Your task to perform on an android device: Go to CNN.com Image 0: 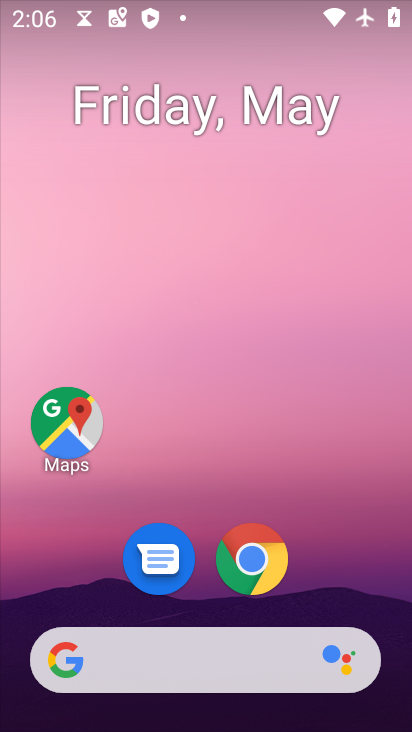
Step 0: click (230, 551)
Your task to perform on an android device: Go to CNN.com Image 1: 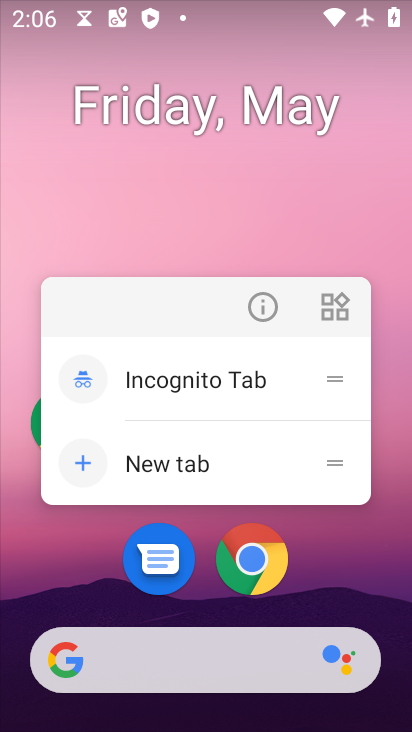
Step 1: click (272, 558)
Your task to perform on an android device: Go to CNN.com Image 2: 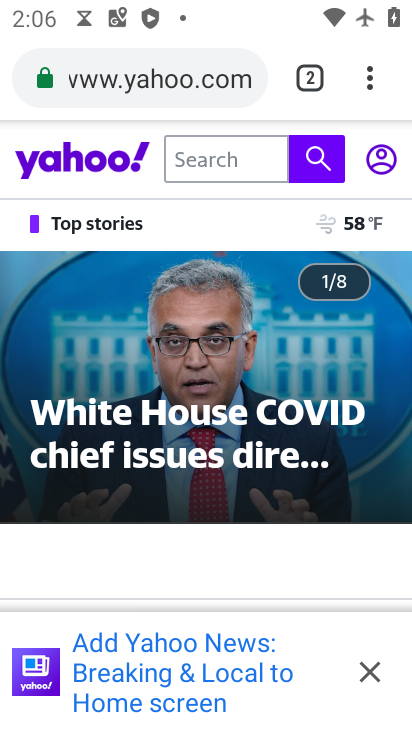
Step 2: click (147, 74)
Your task to perform on an android device: Go to CNN.com Image 3: 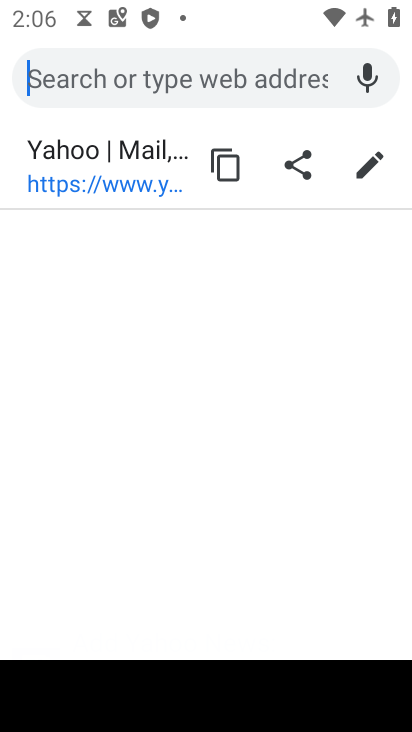
Step 3: type "CNN.com"
Your task to perform on an android device: Go to CNN.com Image 4: 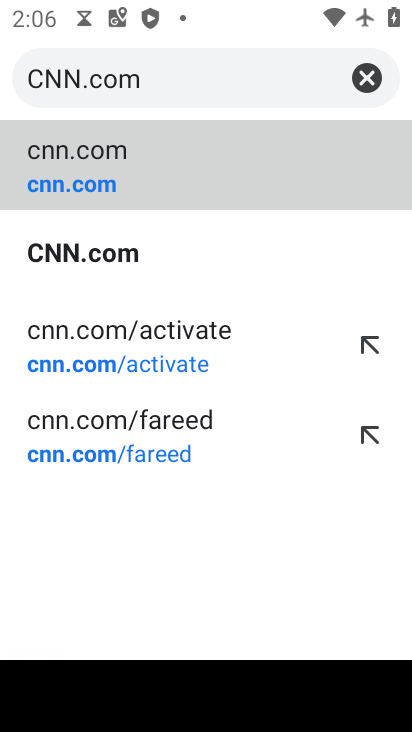
Step 4: drag from (409, 243) to (3, 120)
Your task to perform on an android device: Go to CNN.com Image 5: 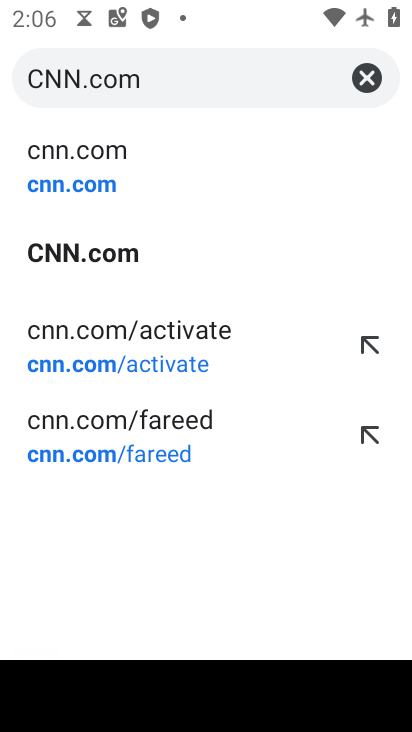
Step 5: click (156, 187)
Your task to perform on an android device: Go to CNN.com Image 6: 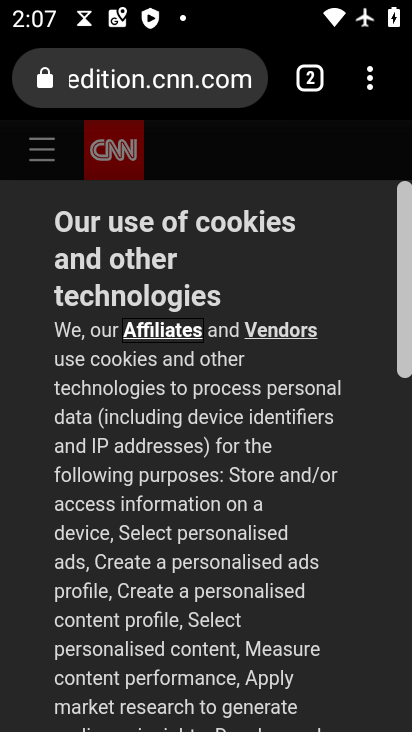
Step 6: task complete